Your task to perform on an android device: Add bose quietcomfort 35 to the cart on target.com, then select checkout. Image 0: 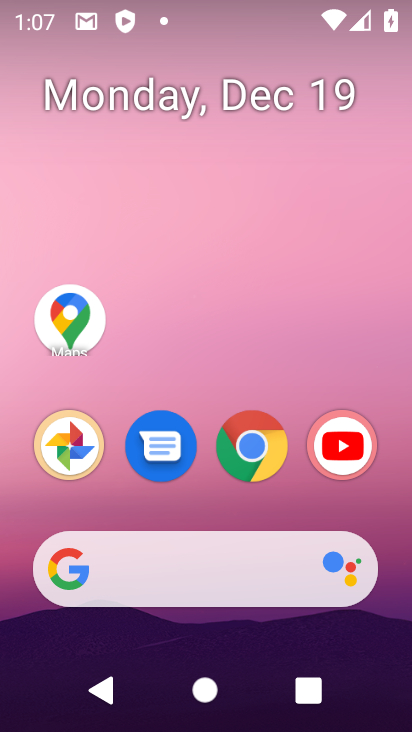
Step 0: press home button
Your task to perform on an android device: Add bose quietcomfort 35 to the cart on target.com, then select checkout. Image 1: 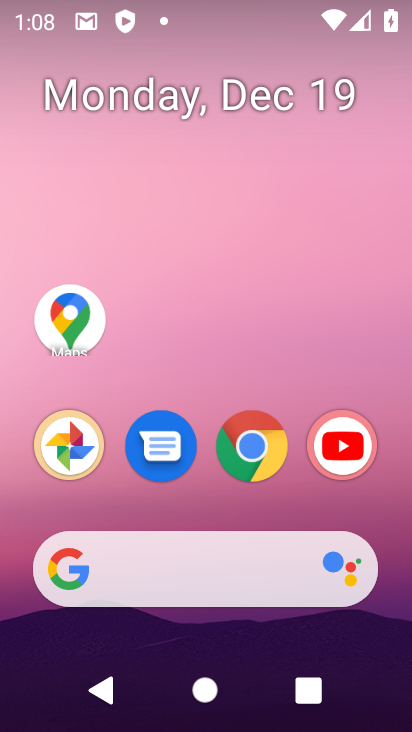
Step 1: press home button
Your task to perform on an android device: Add bose quietcomfort 35 to the cart on target.com, then select checkout. Image 2: 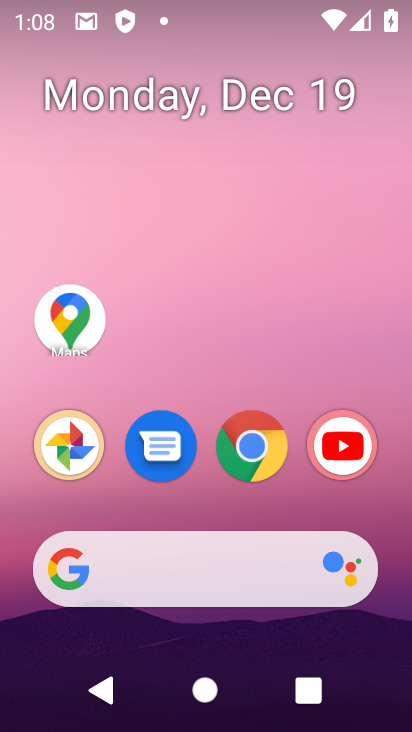
Step 2: press home button
Your task to perform on an android device: Add bose quietcomfort 35 to the cart on target.com, then select checkout. Image 3: 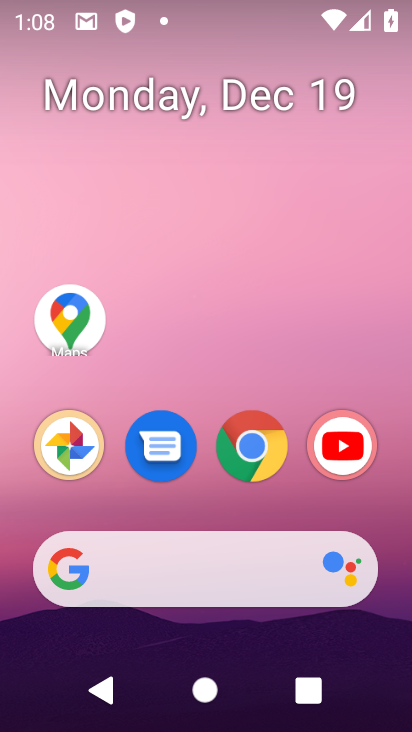
Step 3: click (246, 467)
Your task to perform on an android device: Add bose quietcomfort 35 to the cart on target.com, then select checkout. Image 4: 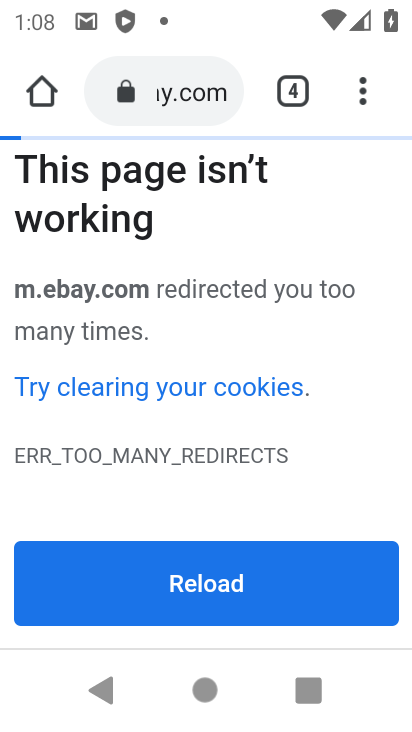
Step 4: click (176, 88)
Your task to perform on an android device: Add bose quietcomfort 35 to the cart on target.com, then select checkout. Image 5: 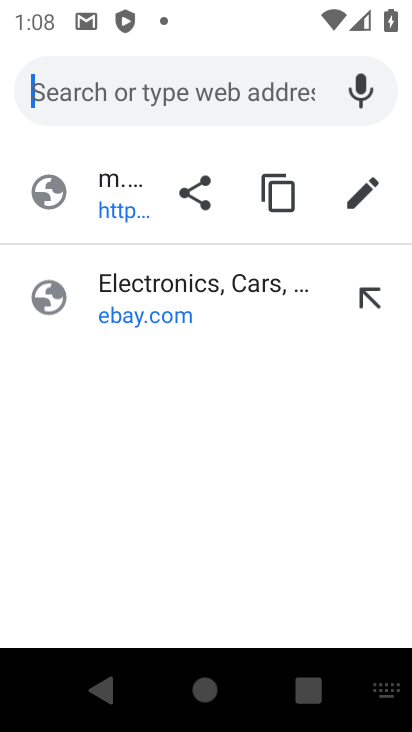
Step 5: type "bose quietcomfort"
Your task to perform on an android device: Add bose quietcomfort 35 to the cart on target.com, then select checkout. Image 6: 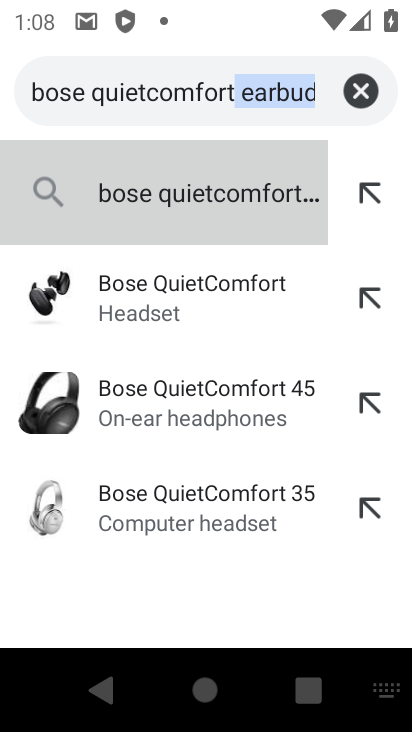
Step 6: click (155, 194)
Your task to perform on an android device: Add bose quietcomfort 35 to the cart on target.com, then select checkout. Image 7: 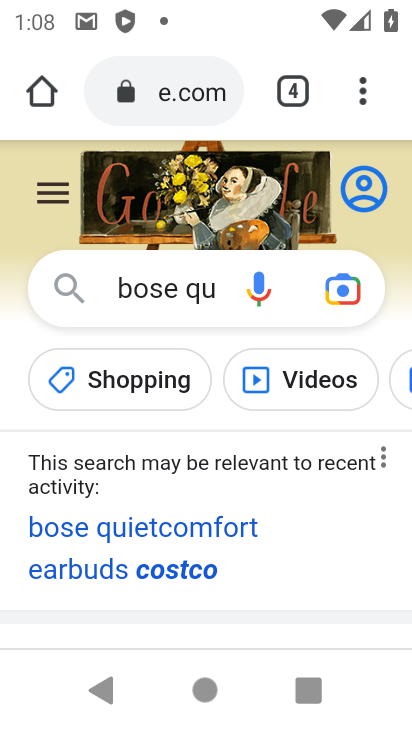
Step 7: task complete